Your task to perform on an android device: Show me popular videos on Youtube Image 0: 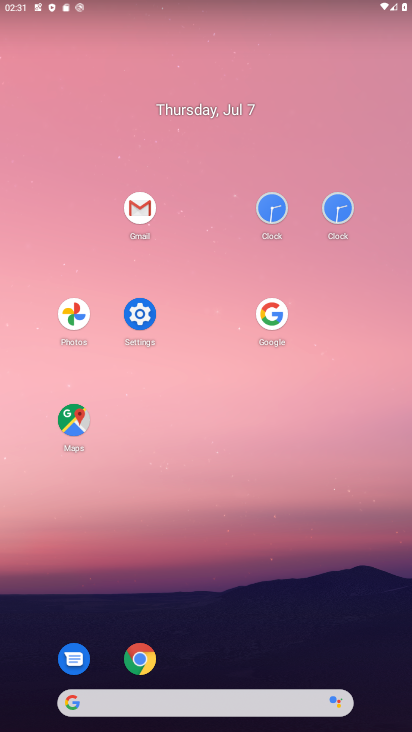
Step 0: drag from (205, 672) to (230, 267)
Your task to perform on an android device: Show me popular videos on Youtube Image 1: 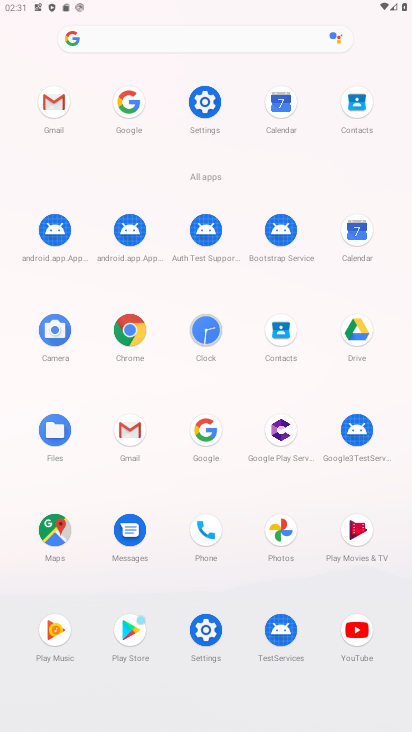
Step 1: click (361, 635)
Your task to perform on an android device: Show me popular videos on Youtube Image 2: 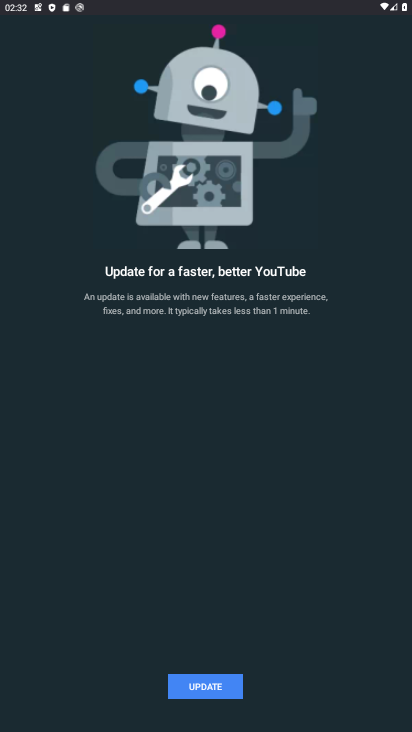
Step 2: click (226, 686)
Your task to perform on an android device: Show me popular videos on Youtube Image 3: 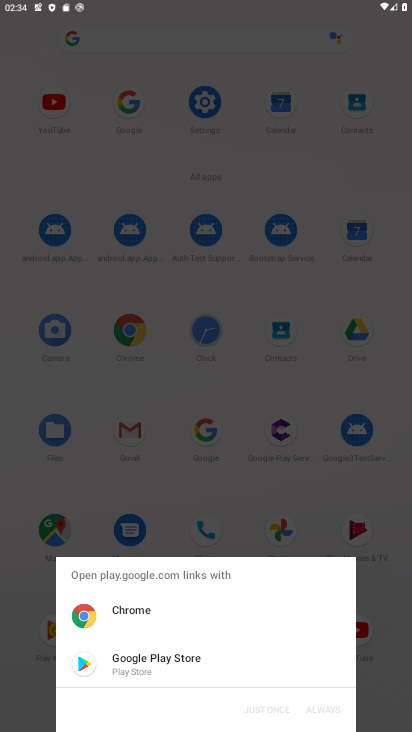
Step 3: press home button
Your task to perform on an android device: Show me popular videos on Youtube Image 4: 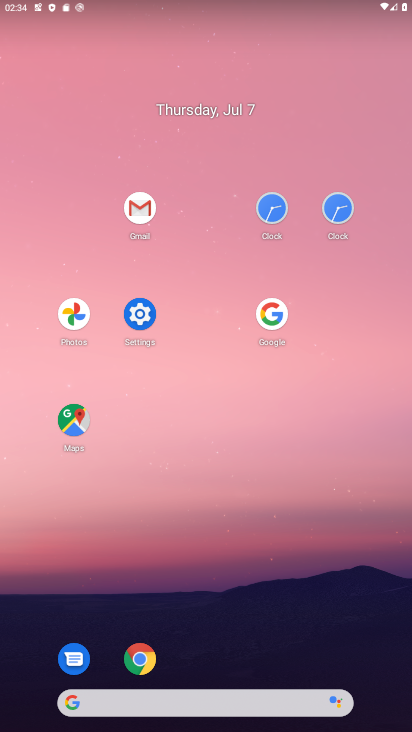
Step 4: drag from (218, 608) to (270, 89)
Your task to perform on an android device: Show me popular videos on Youtube Image 5: 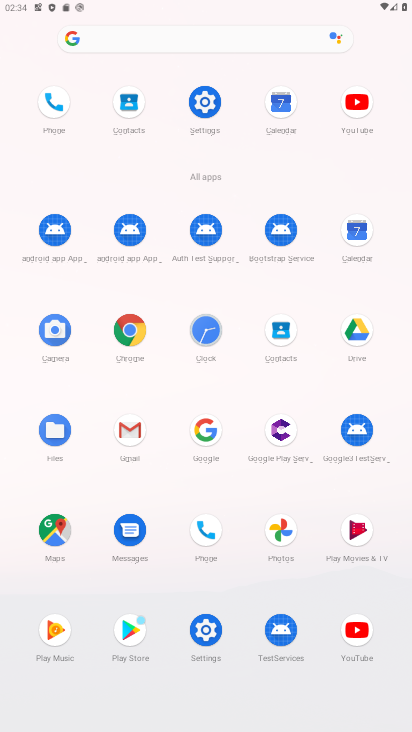
Step 5: click (358, 105)
Your task to perform on an android device: Show me popular videos on Youtube Image 6: 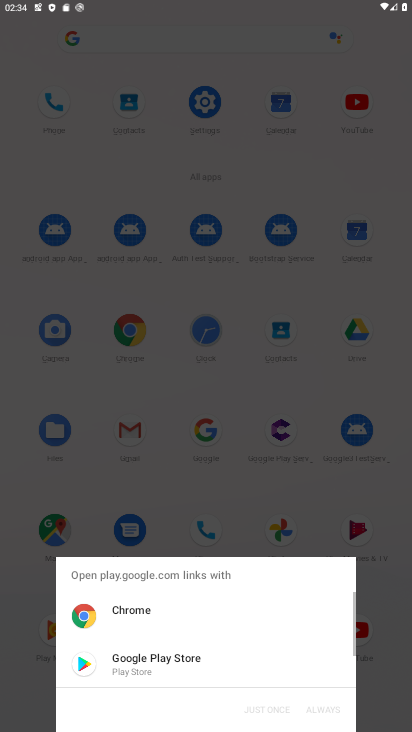
Step 6: click (218, 664)
Your task to perform on an android device: Show me popular videos on Youtube Image 7: 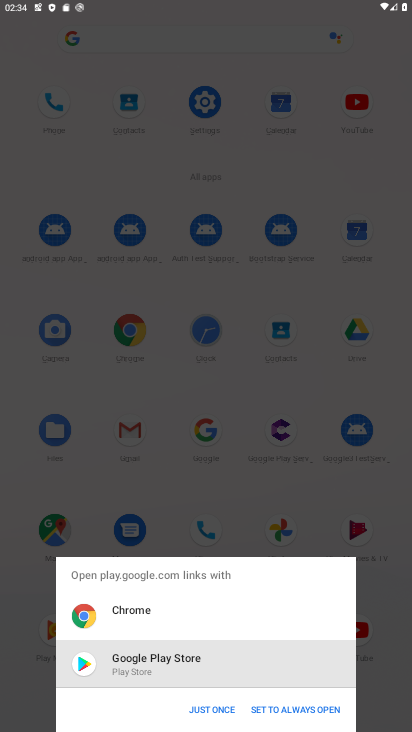
Step 7: click (225, 666)
Your task to perform on an android device: Show me popular videos on Youtube Image 8: 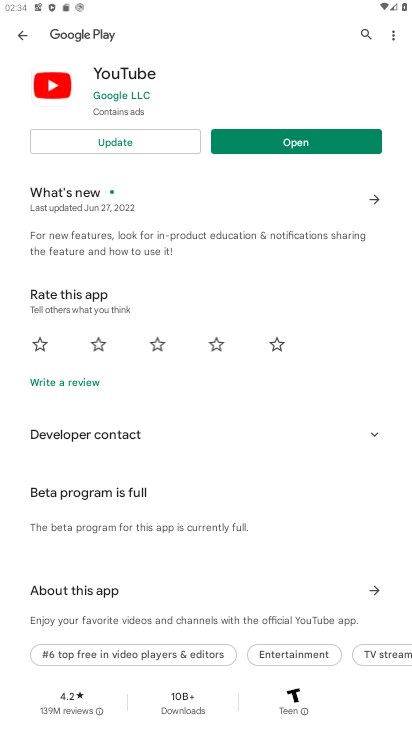
Step 8: click (76, 144)
Your task to perform on an android device: Show me popular videos on Youtube Image 9: 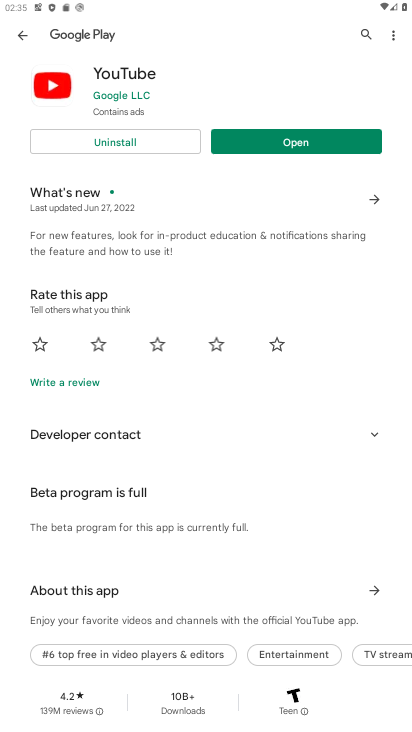
Step 9: click (260, 137)
Your task to perform on an android device: Show me popular videos on Youtube Image 10: 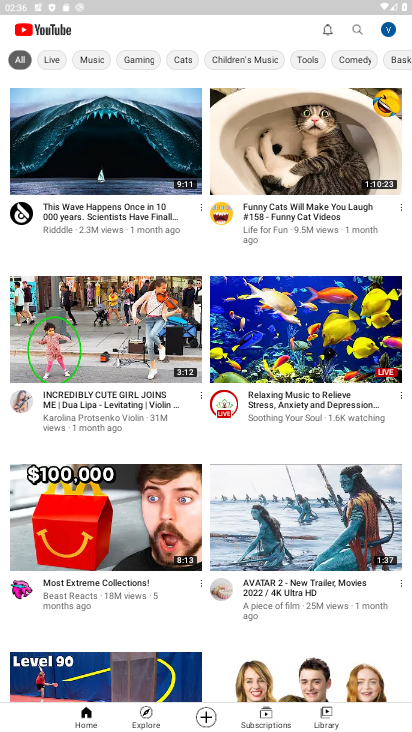
Step 10: task complete